Your task to perform on an android device: snooze an email in the gmail app Image 0: 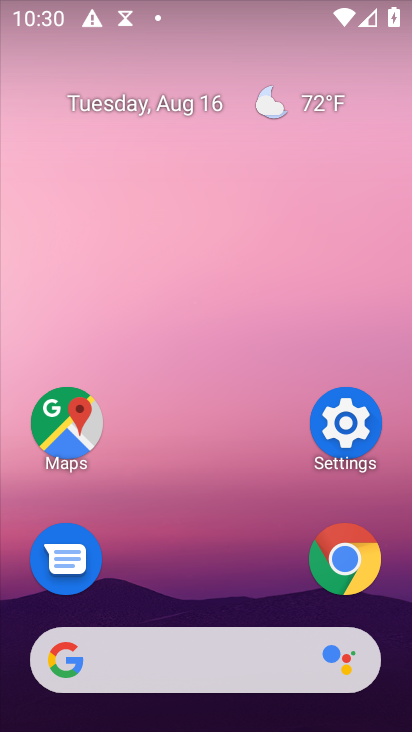
Step 0: drag from (203, 600) to (327, 76)
Your task to perform on an android device: snooze an email in the gmail app Image 1: 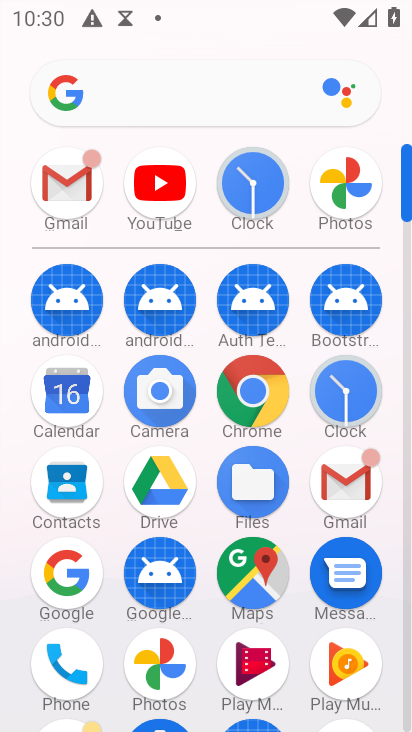
Step 1: click (351, 485)
Your task to perform on an android device: snooze an email in the gmail app Image 2: 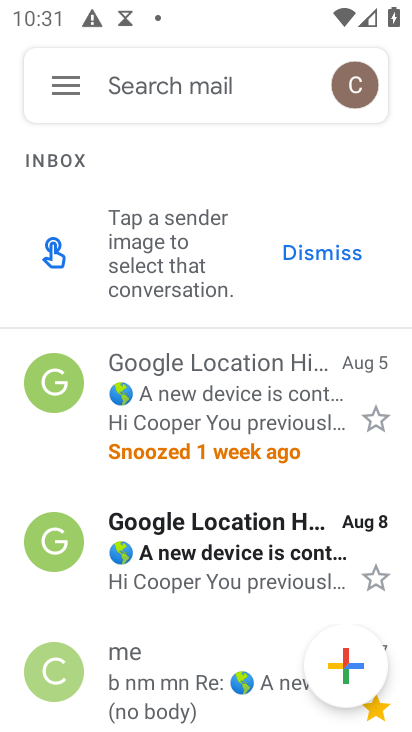
Step 2: click (52, 542)
Your task to perform on an android device: snooze an email in the gmail app Image 3: 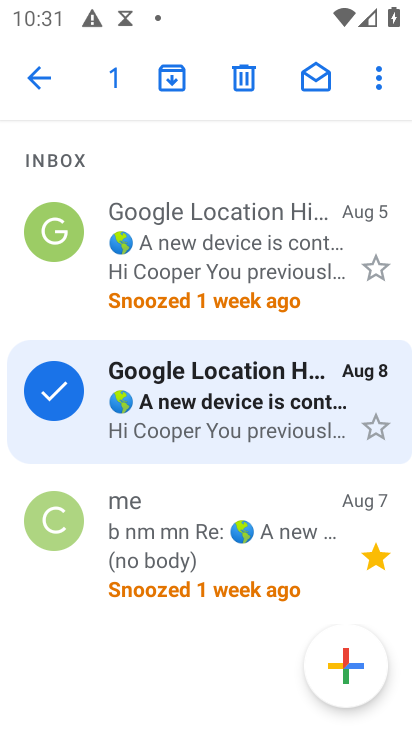
Step 3: click (380, 77)
Your task to perform on an android device: snooze an email in the gmail app Image 4: 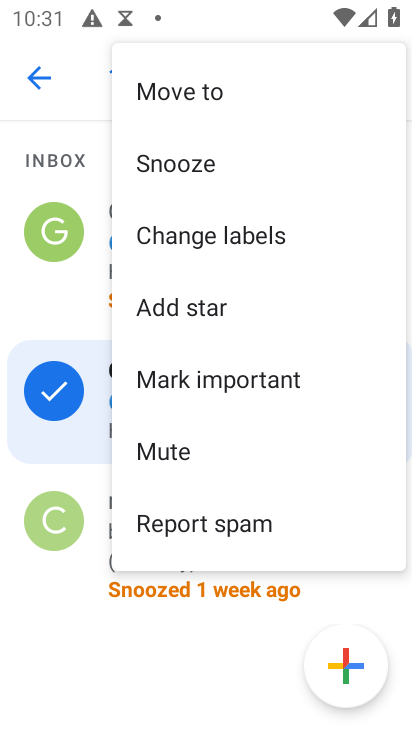
Step 4: click (189, 168)
Your task to perform on an android device: snooze an email in the gmail app Image 5: 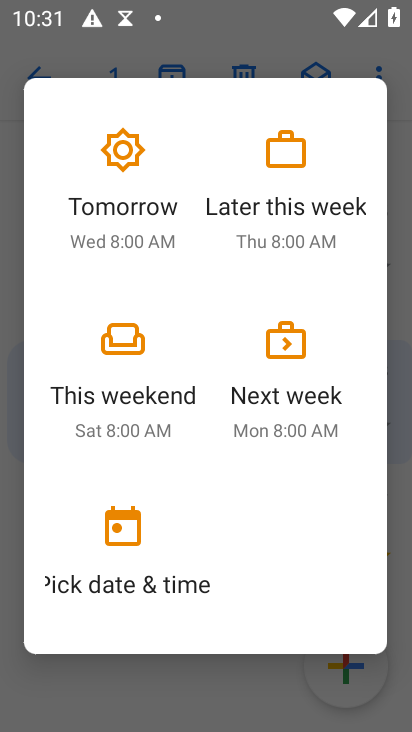
Step 5: click (104, 393)
Your task to perform on an android device: snooze an email in the gmail app Image 6: 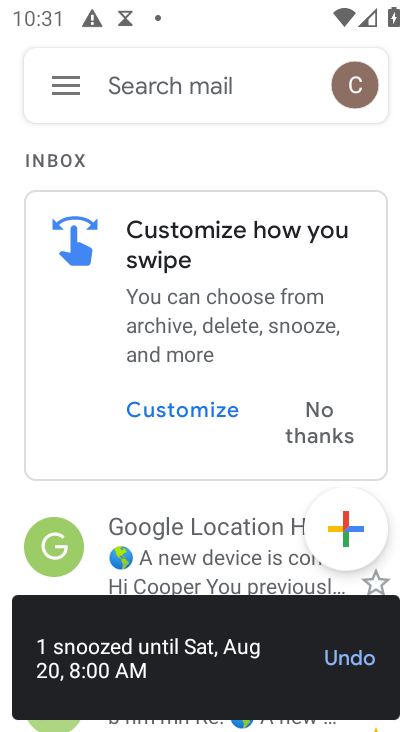
Step 6: task complete